Your task to perform on an android device: empty trash in the gmail app Image 0: 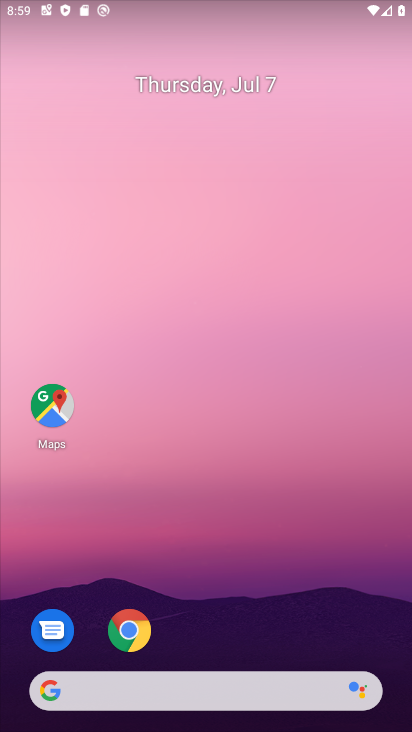
Step 0: drag from (214, 623) to (214, 180)
Your task to perform on an android device: empty trash in the gmail app Image 1: 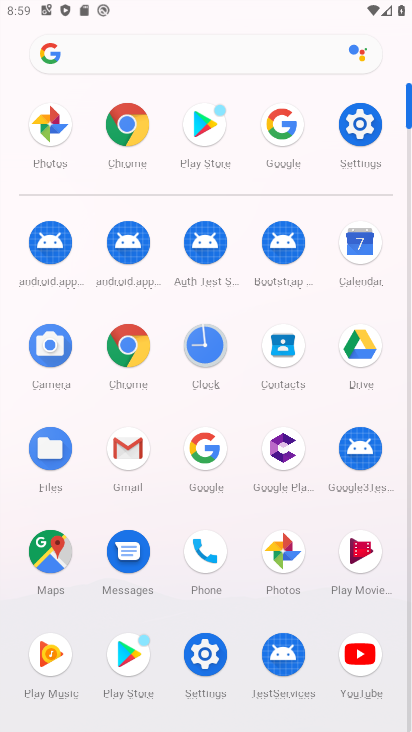
Step 1: click (120, 421)
Your task to perform on an android device: empty trash in the gmail app Image 2: 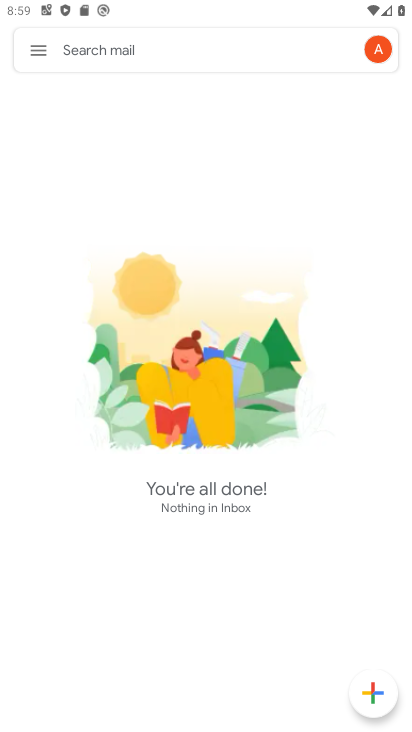
Step 2: click (31, 44)
Your task to perform on an android device: empty trash in the gmail app Image 3: 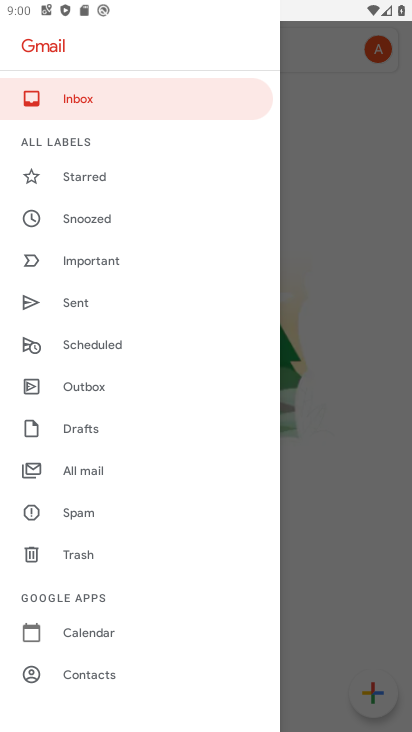
Step 3: click (78, 560)
Your task to perform on an android device: empty trash in the gmail app Image 4: 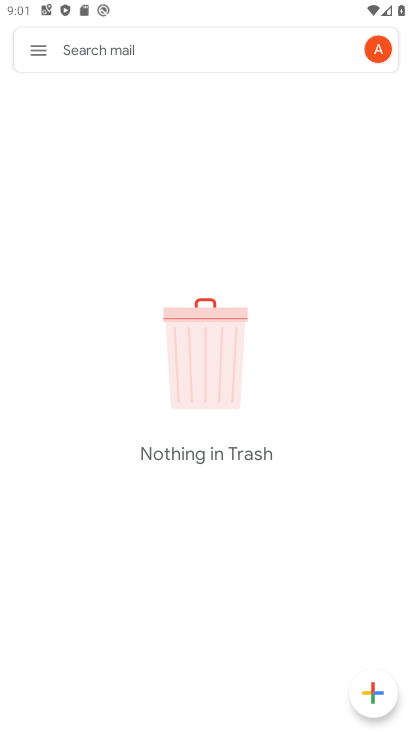
Step 4: task complete